Your task to perform on an android device: What's on my calendar tomorrow? Image 0: 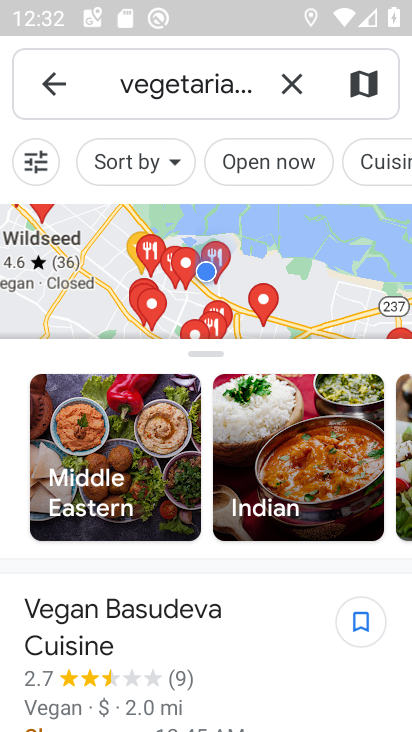
Step 0: press home button
Your task to perform on an android device: What's on my calendar tomorrow? Image 1: 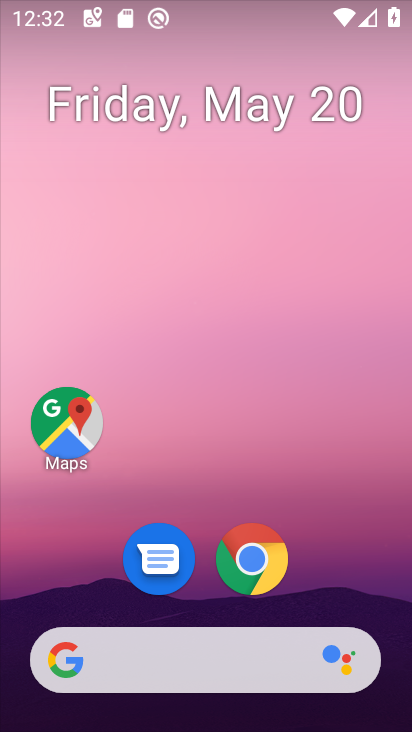
Step 1: drag from (377, 555) to (295, 128)
Your task to perform on an android device: What's on my calendar tomorrow? Image 2: 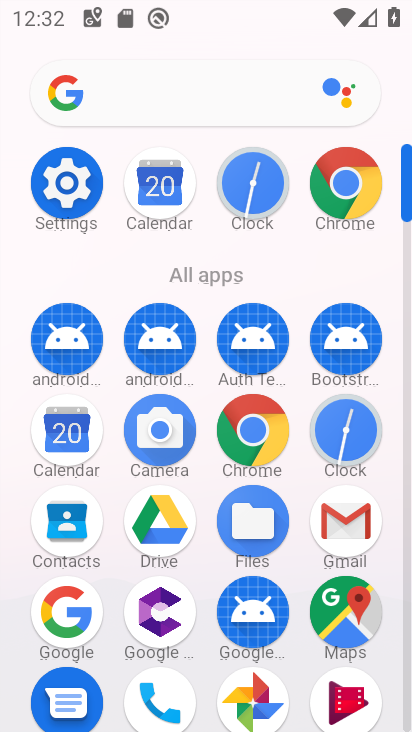
Step 2: click (173, 191)
Your task to perform on an android device: What's on my calendar tomorrow? Image 3: 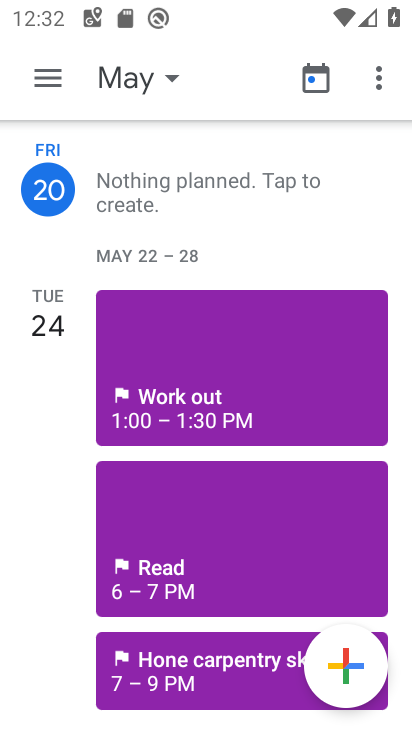
Step 3: click (145, 71)
Your task to perform on an android device: What's on my calendar tomorrow? Image 4: 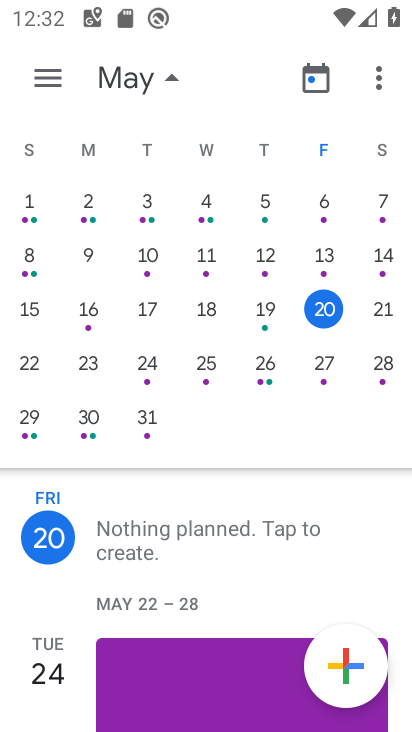
Step 4: click (384, 300)
Your task to perform on an android device: What's on my calendar tomorrow? Image 5: 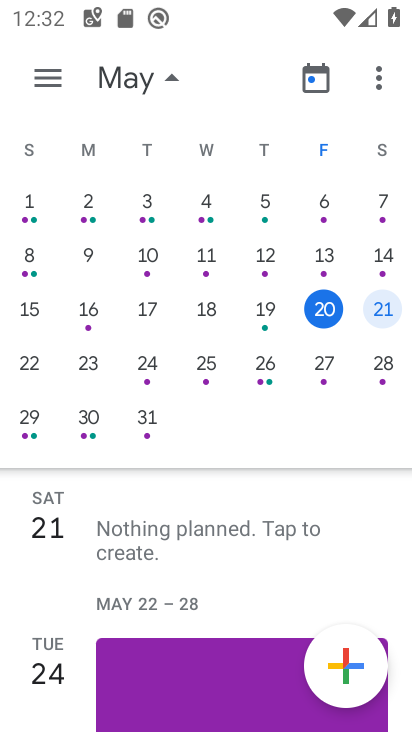
Step 5: click (165, 96)
Your task to perform on an android device: What's on my calendar tomorrow? Image 6: 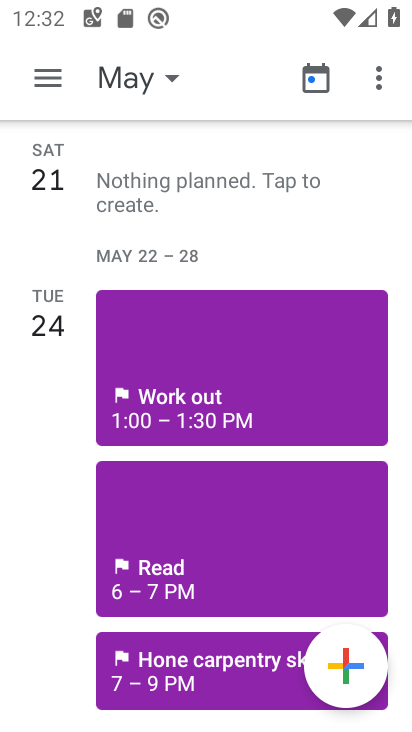
Step 6: task complete